Your task to perform on an android device: When is my next meeting? Image 0: 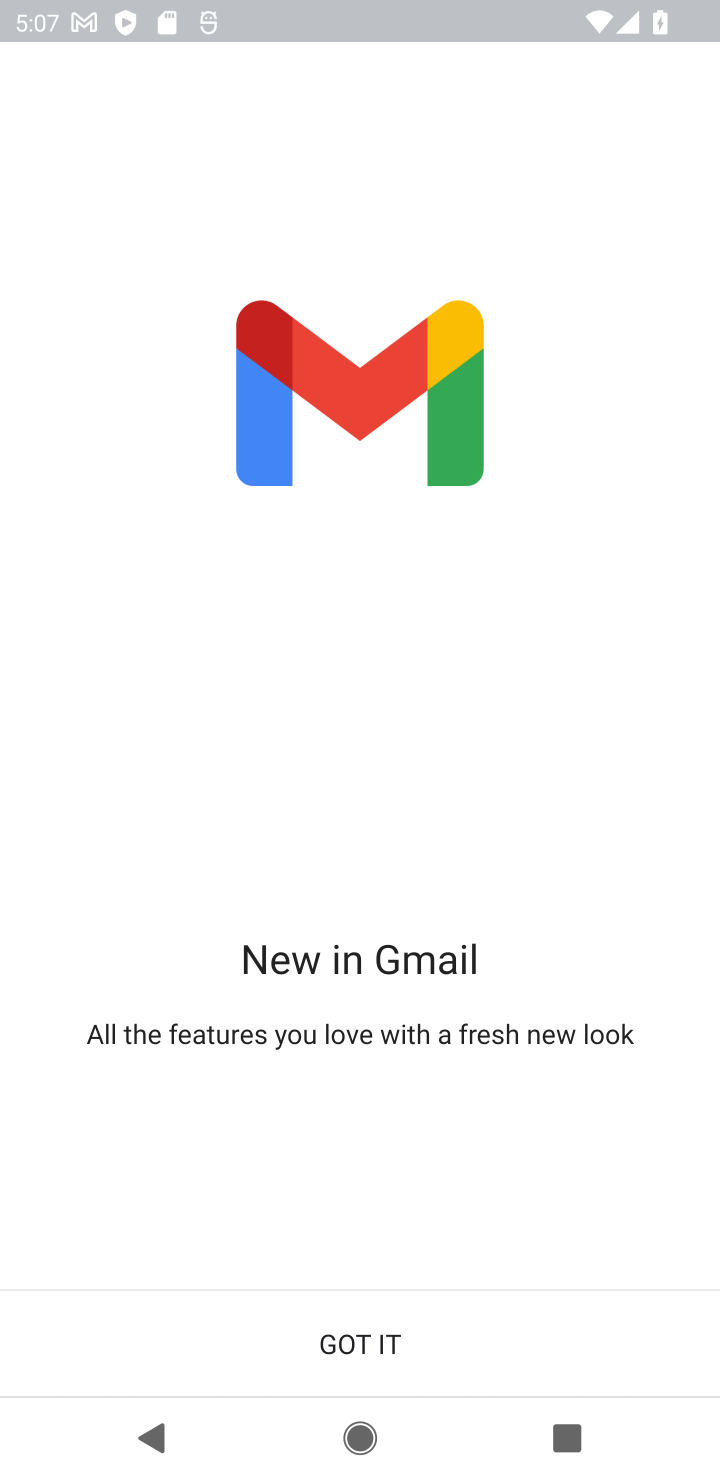
Step 0: press home button
Your task to perform on an android device: When is my next meeting? Image 1: 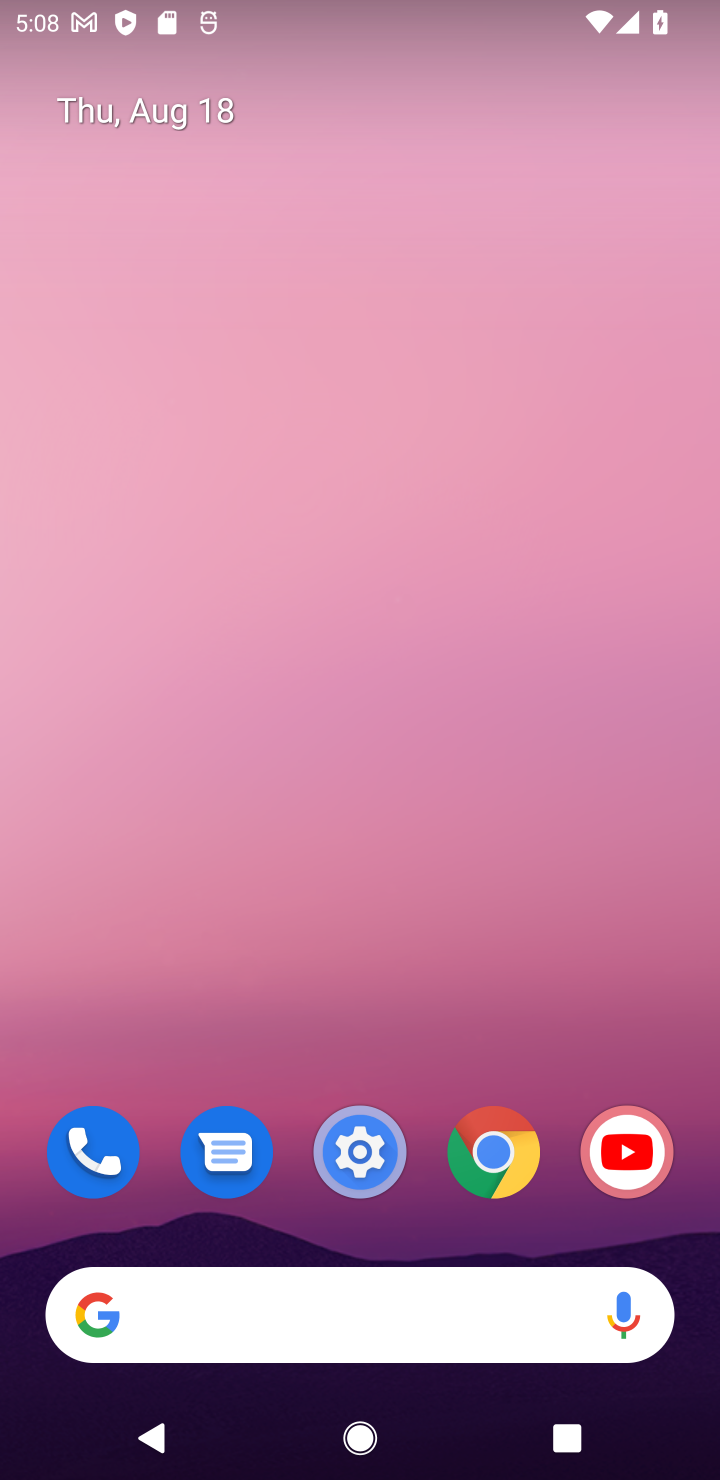
Step 1: click (146, 108)
Your task to perform on an android device: When is my next meeting? Image 2: 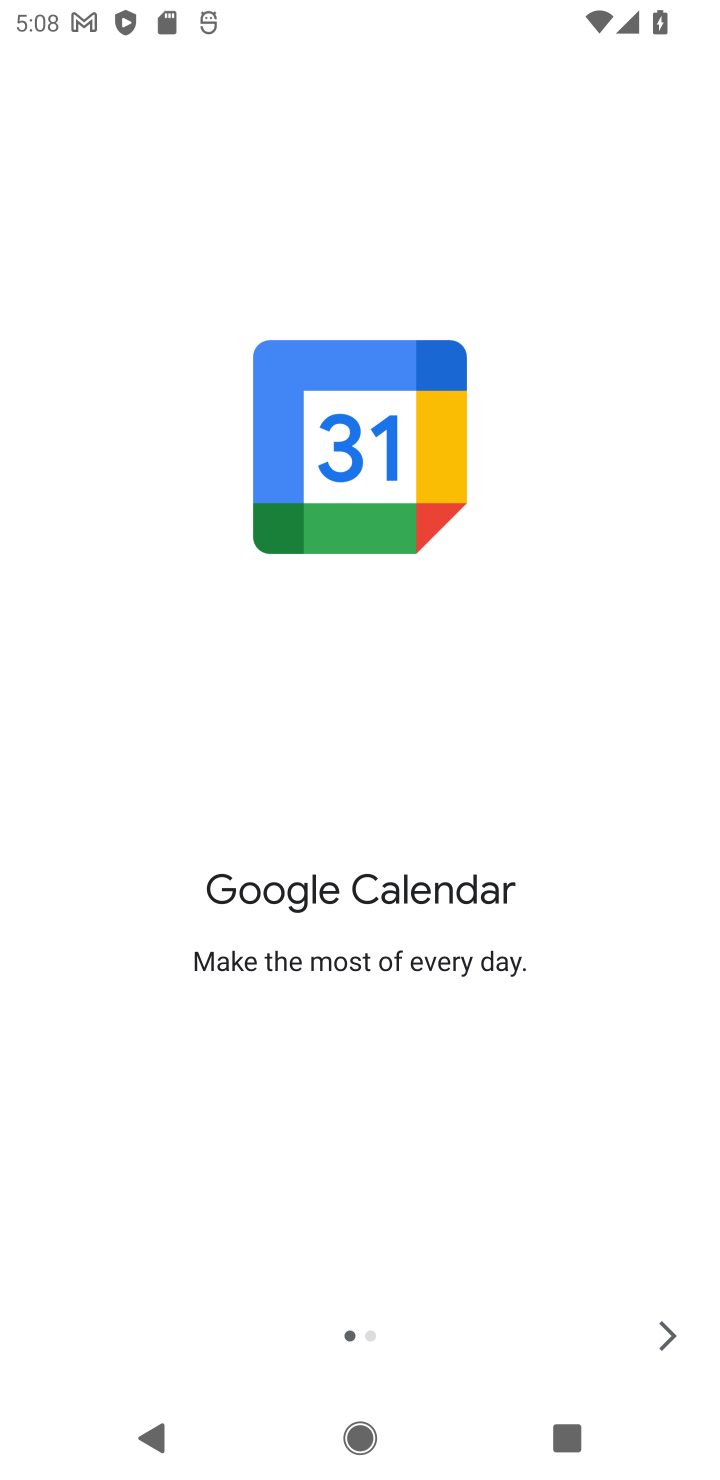
Step 2: click (659, 1331)
Your task to perform on an android device: When is my next meeting? Image 3: 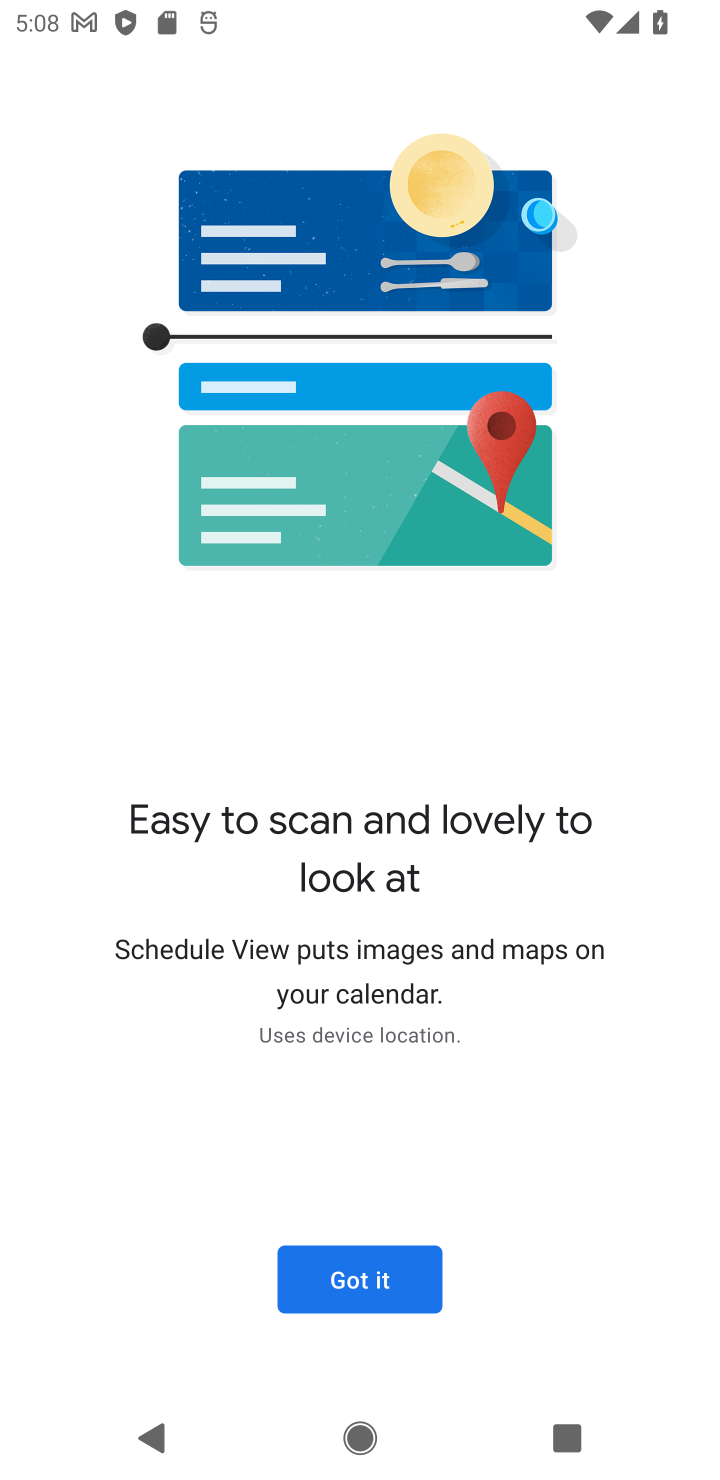
Step 3: click (402, 1267)
Your task to perform on an android device: When is my next meeting? Image 4: 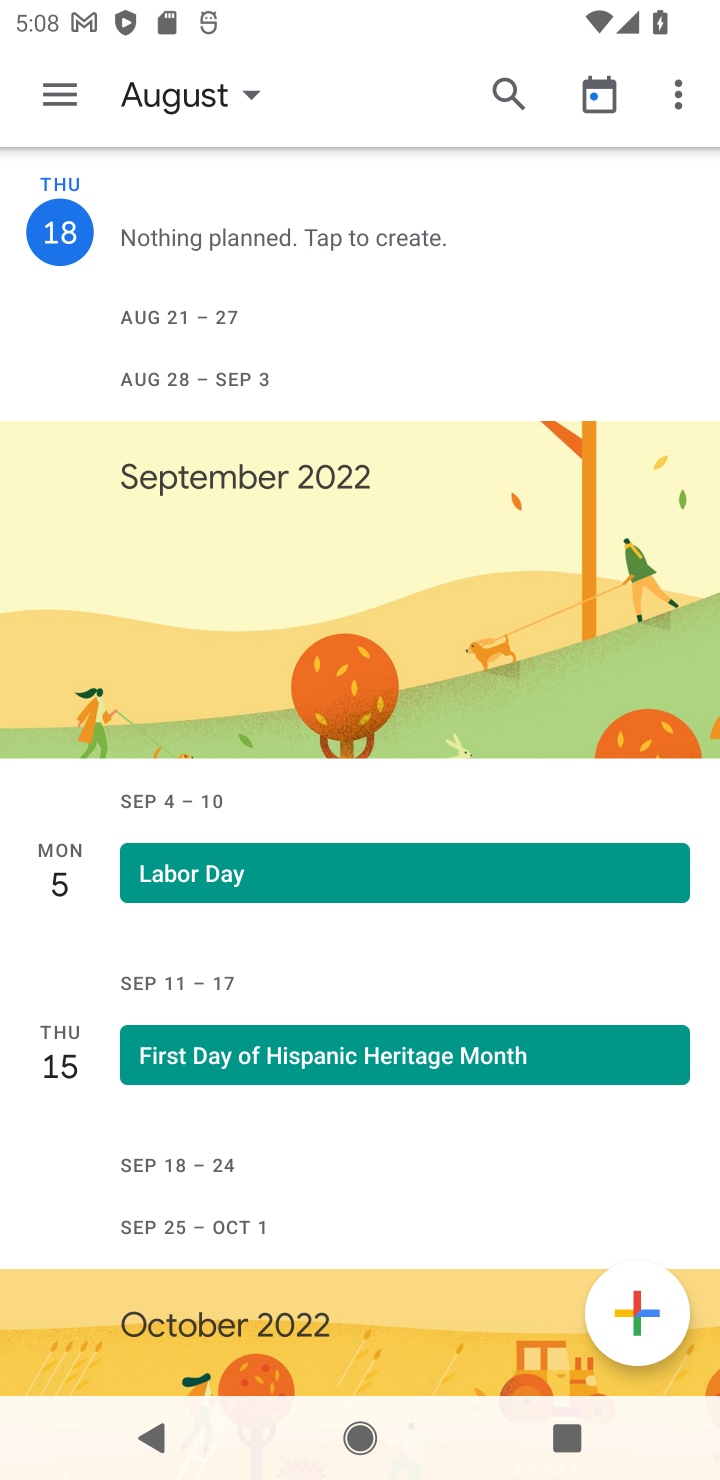
Step 4: task complete